Your task to perform on an android device: turn off airplane mode Image 0: 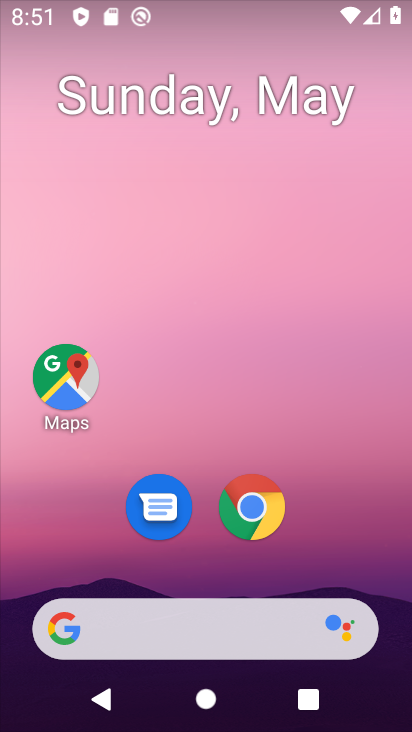
Step 0: drag from (198, 578) to (263, 6)
Your task to perform on an android device: turn off airplane mode Image 1: 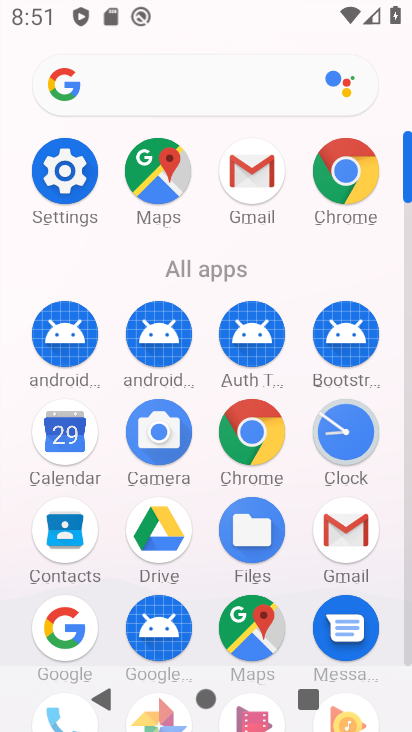
Step 1: click (79, 189)
Your task to perform on an android device: turn off airplane mode Image 2: 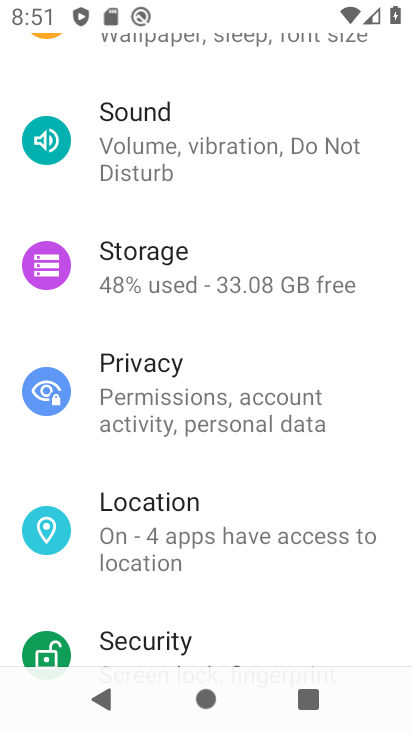
Step 2: drag from (298, 206) to (269, 401)
Your task to perform on an android device: turn off airplane mode Image 3: 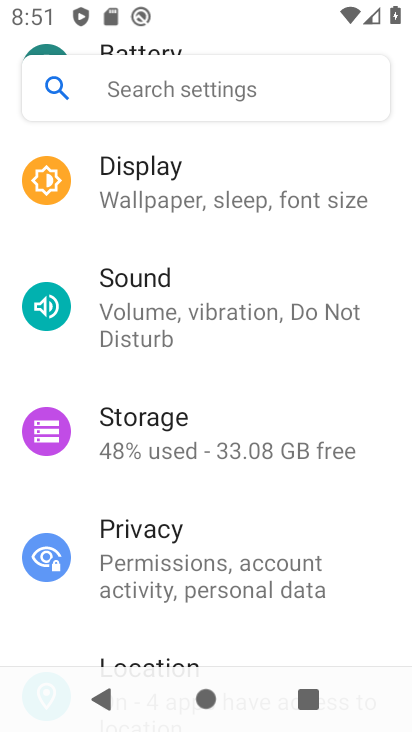
Step 3: drag from (248, 223) to (238, 544)
Your task to perform on an android device: turn off airplane mode Image 4: 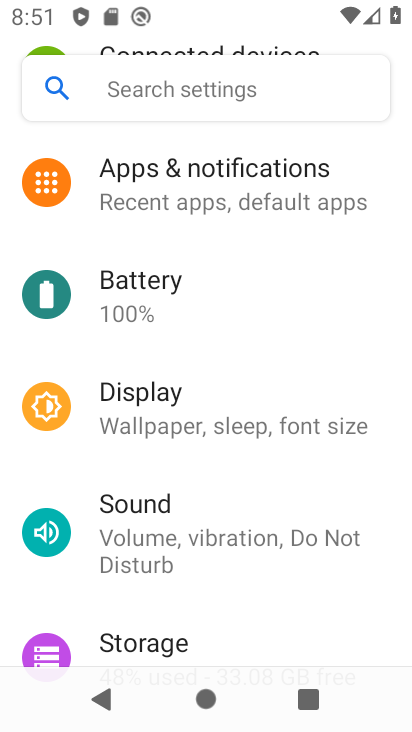
Step 4: drag from (267, 253) to (258, 555)
Your task to perform on an android device: turn off airplane mode Image 5: 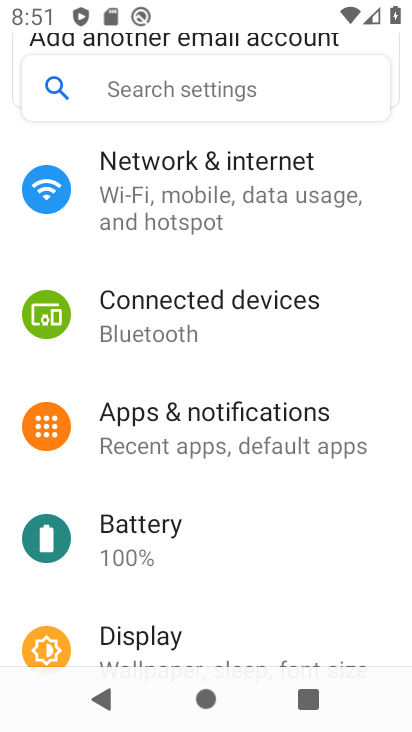
Step 5: click (185, 234)
Your task to perform on an android device: turn off airplane mode Image 6: 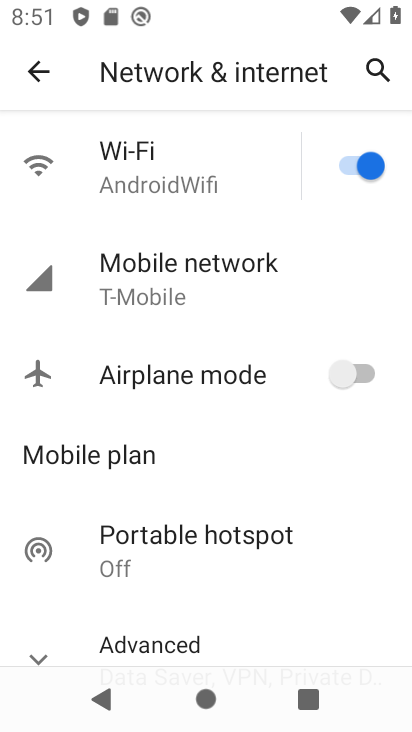
Step 6: task complete